Your task to perform on an android device: make emails show in primary in the gmail app Image 0: 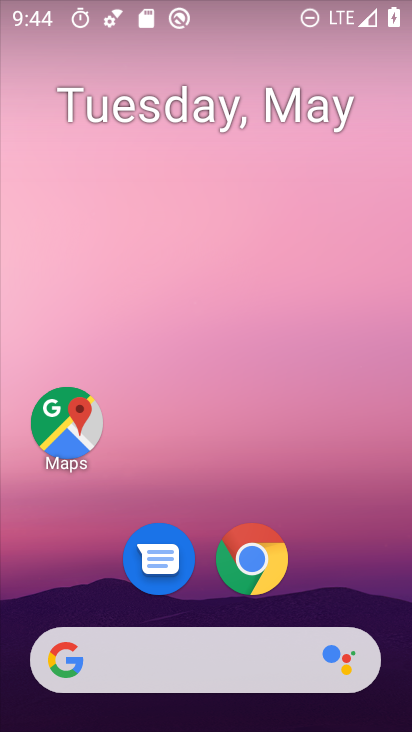
Step 0: drag from (382, 635) to (233, 23)
Your task to perform on an android device: make emails show in primary in the gmail app Image 1: 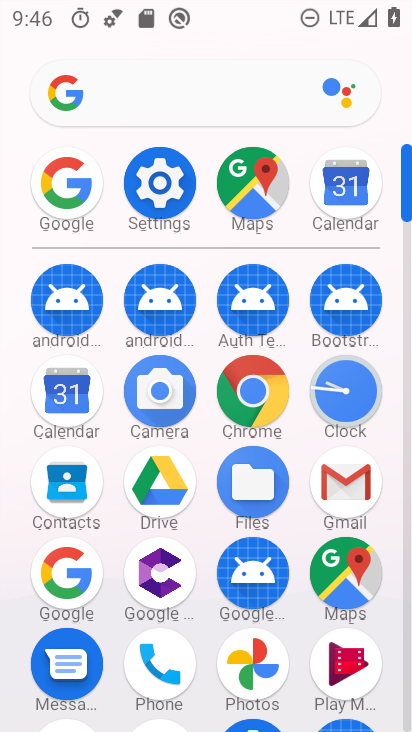
Step 1: click (327, 510)
Your task to perform on an android device: make emails show in primary in the gmail app Image 2: 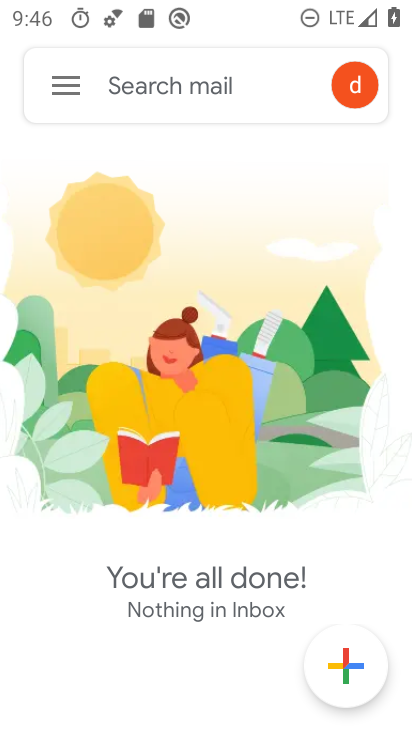
Step 2: click (59, 83)
Your task to perform on an android device: make emails show in primary in the gmail app Image 3: 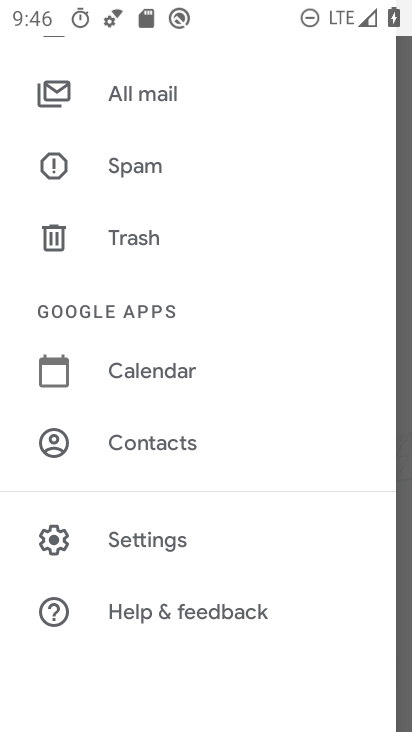
Step 3: task complete